Your task to perform on an android device: toggle notification dots Image 0: 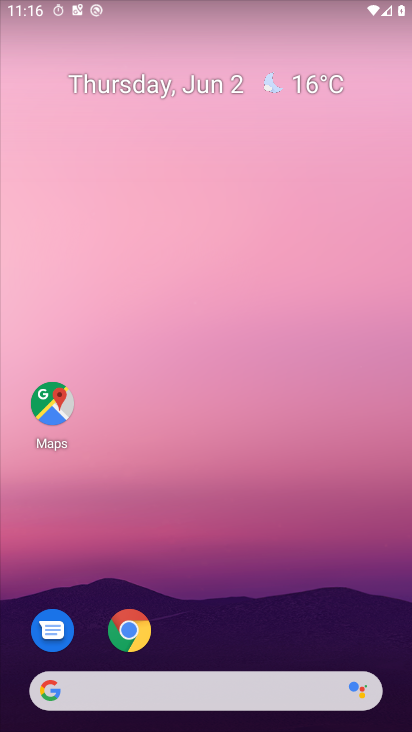
Step 0: drag from (216, 634) to (262, 9)
Your task to perform on an android device: toggle notification dots Image 1: 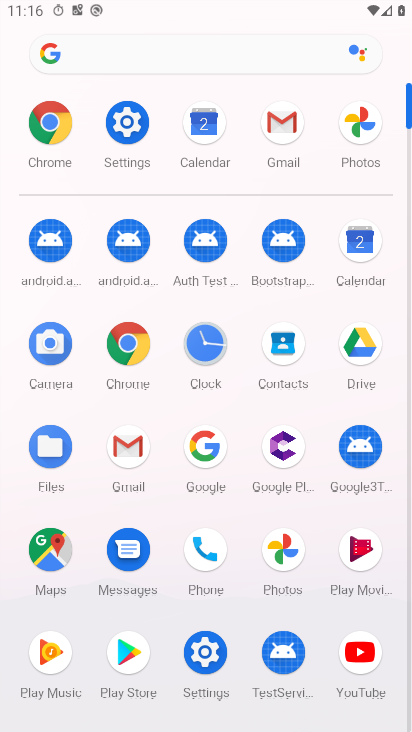
Step 1: click (133, 162)
Your task to perform on an android device: toggle notification dots Image 2: 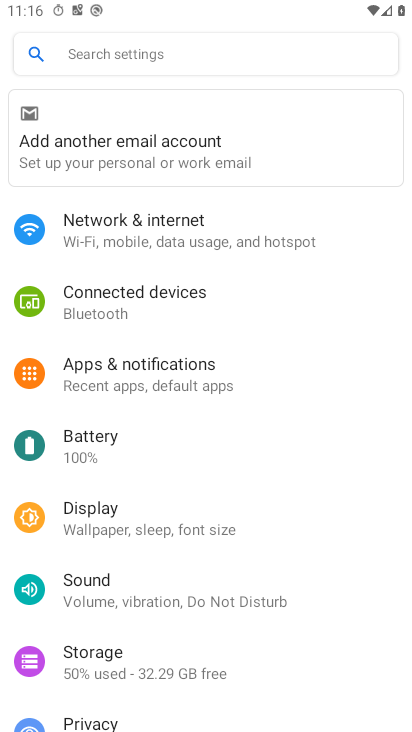
Step 2: click (171, 396)
Your task to perform on an android device: toggle notification dots Image 3: 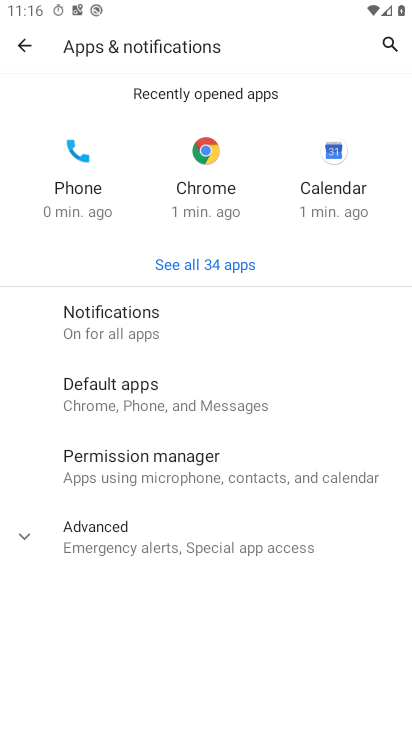
Step 3: click (123, 323)
Your task to perform on an android device: toggle notification dots Image 4: 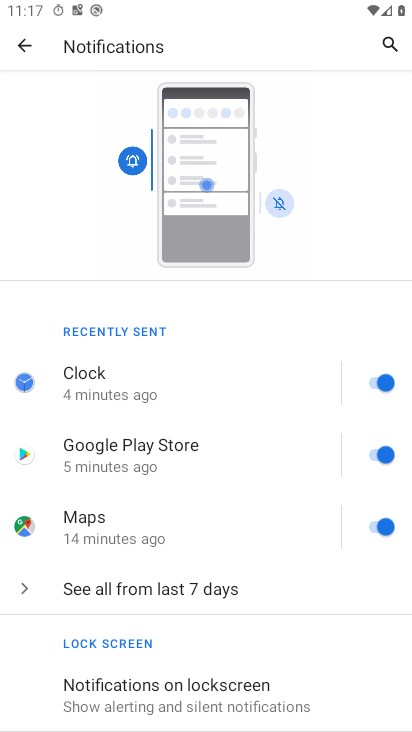
Step 4: drag from (175, 491) to (194, 257)
Your task to perform on an android device: toggle notification dots Image 5: 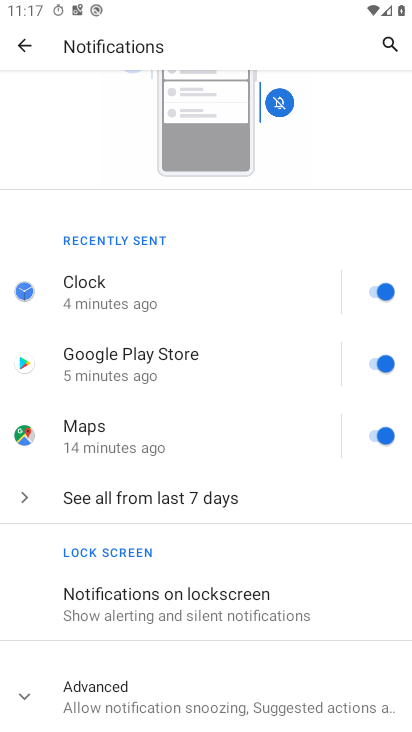
Step 5: drag from (178, 591) to (200, 462)
Your task to perform on an android device: toggle notification dots Image 6: 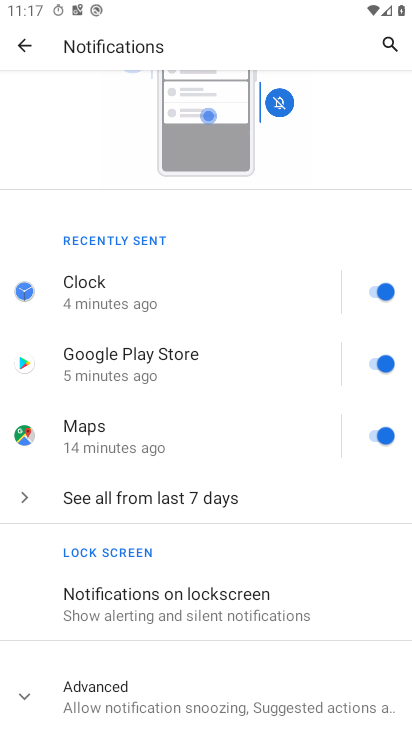
Step 6: click (71, 705)
Your task to perform on an android device: toggle notification dots Image 7: 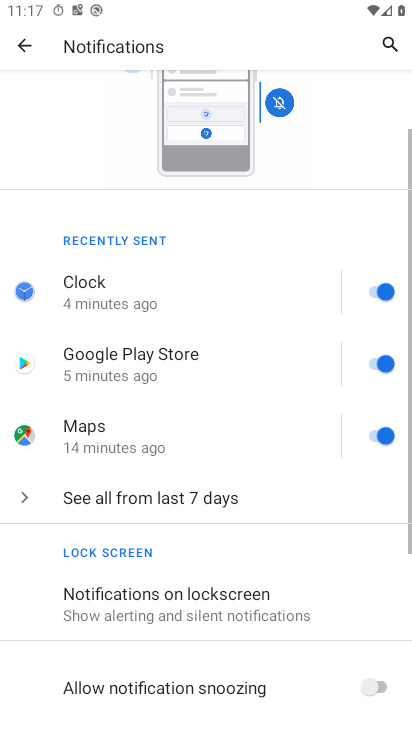
Step 7: drag from (250, 659) to (268, 309)
Your task to perform on an android device: toggle notification dots Image 8: 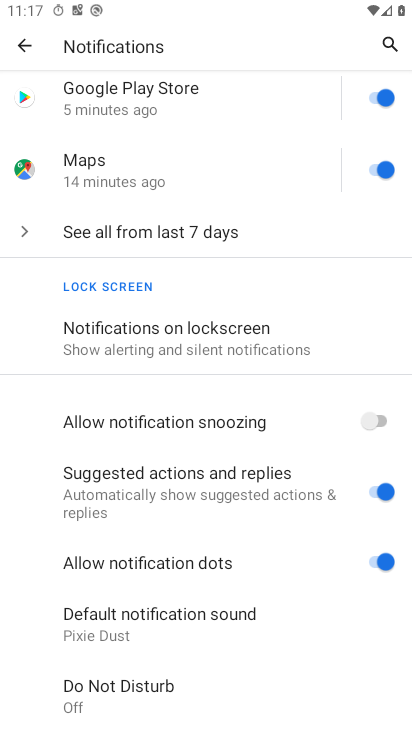
Step 8: click (367, 572)
Your task to perform on an android device: toggle notification dots Image 9: 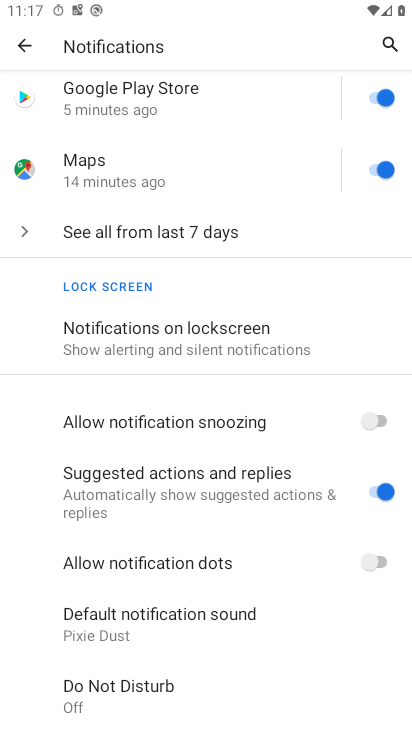
Step 9: task complete